Your task to perform on an android device: change the clock display to show seconds Image 0: 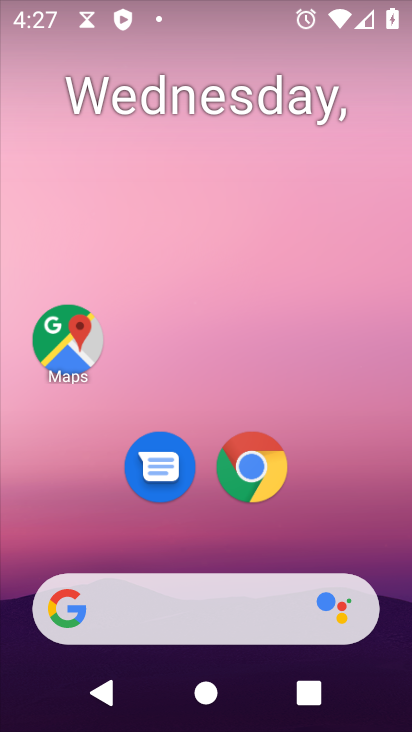
Step 0: drag from (379, 494) to (372, 77)
Your task to perform on an android device: change the clock display to show seconds Image 1: 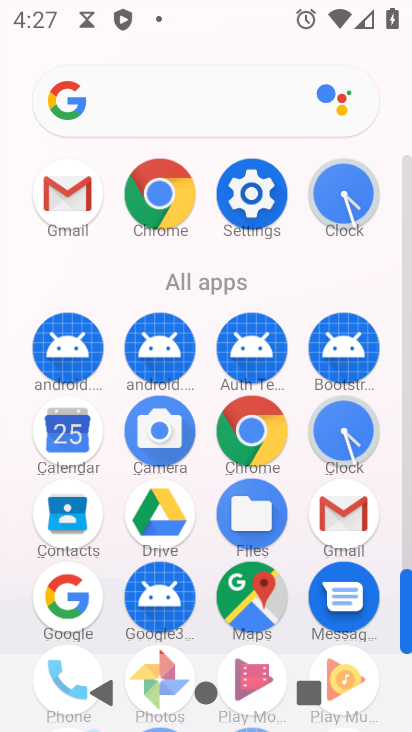
Step 1: click (347, 194)
Your task to perform on an android device: change the clock display to show seconds Image 2: 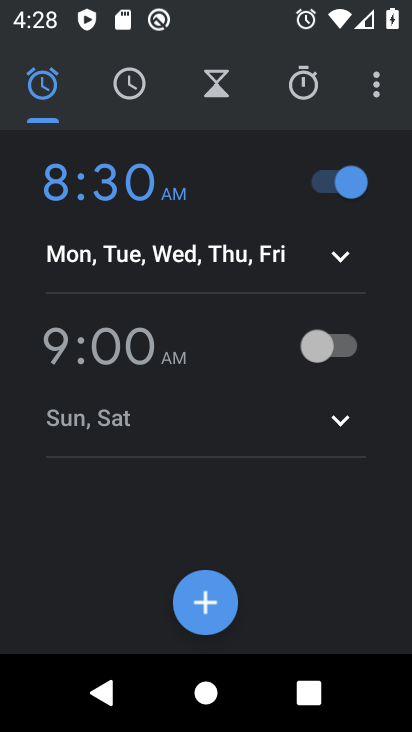
Step 2: click (372, 104)
Your task to perform on an android device: change the clock display to show seconds Image 3: 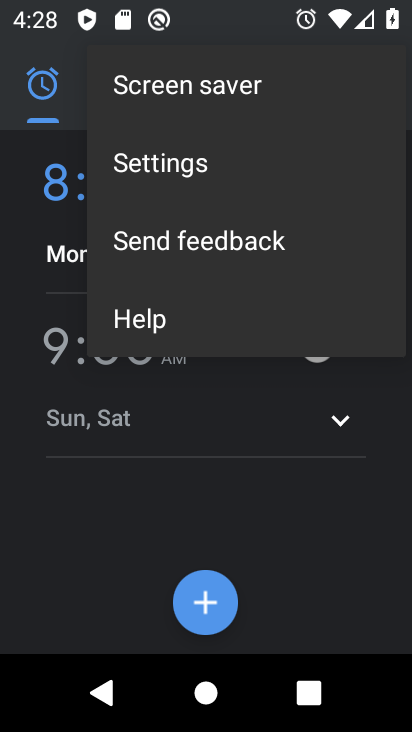
Step 3: click (185, 180)
Your task to perform on an android device: change the clock display to show seconds Image 4: 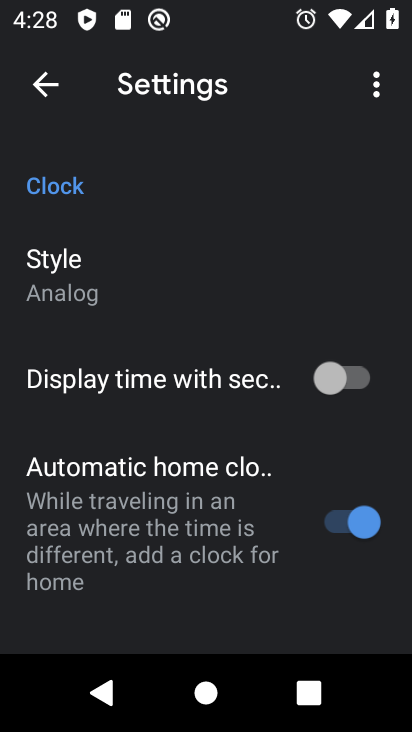
Step 4: click (355, 391)
Your task to perform on an android device: change the clock display to show seconds Image 5: 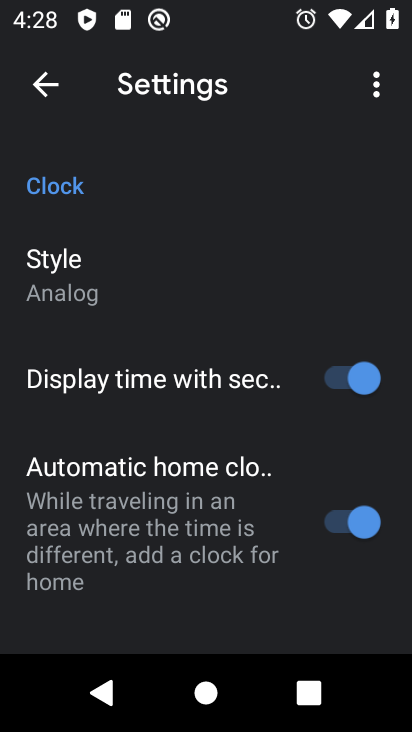
Step 5: task complete